Your task to perform on an android device: turn on bluetooth scan Image 0: 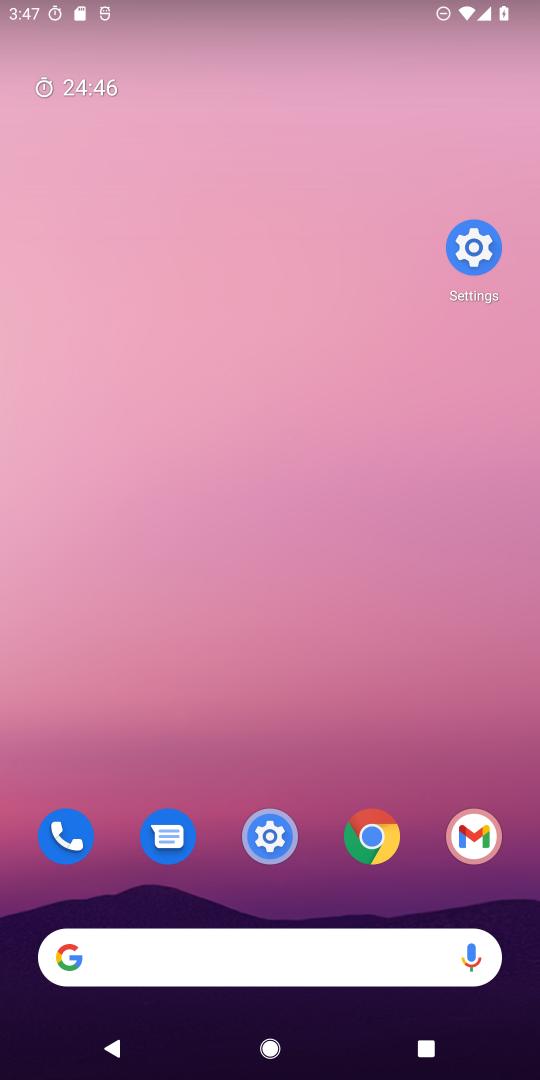
Step 0: click (278, 851)
Your task to perform on an android device: turn on bluetooth scan Image 1: 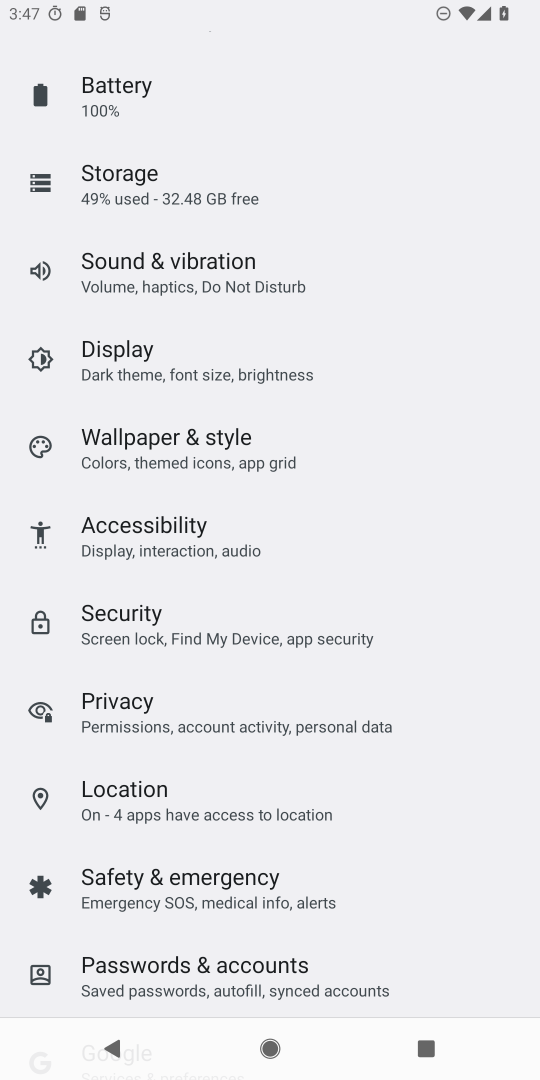
Step 1: click (173, 789)
Your task to perform on an android device: turn on bluetooth scan Image 2: 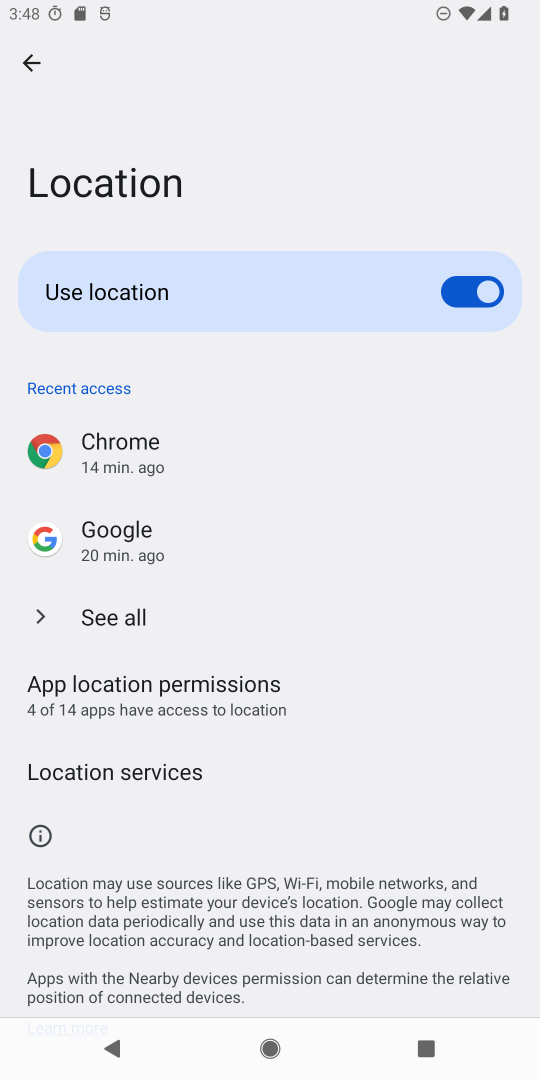
Step 2: click (134, 769)
Your task to perform on an android device: turn on bluetooth scan Image 3: 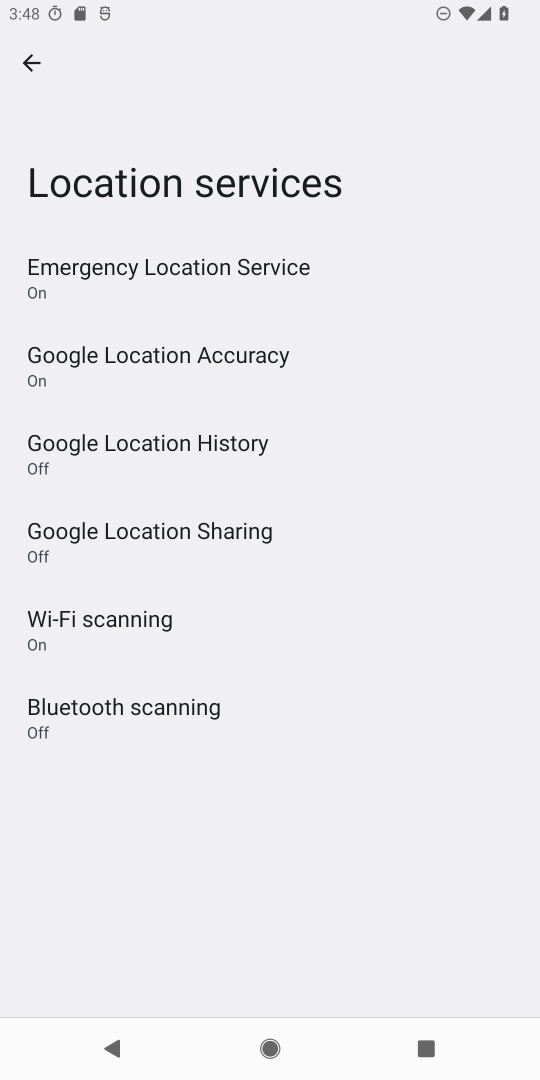
Step 3: click (130, 726)
Your task to perform on an android device: turn on bluetooth scan Image 4: 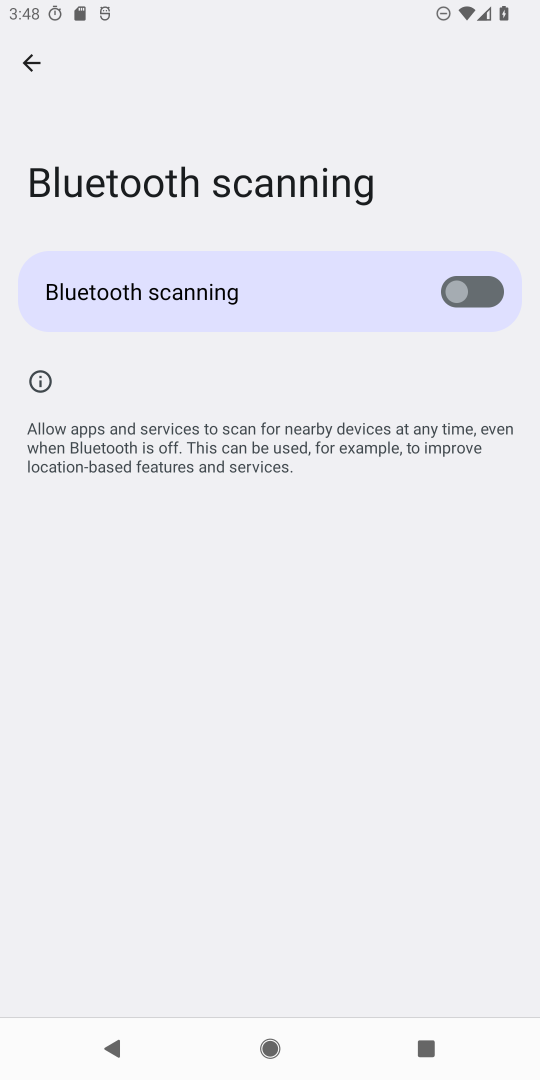
Step 4: click (499, 287)
Your task to perform on an android device: turn on bluetooth scan Image 5: 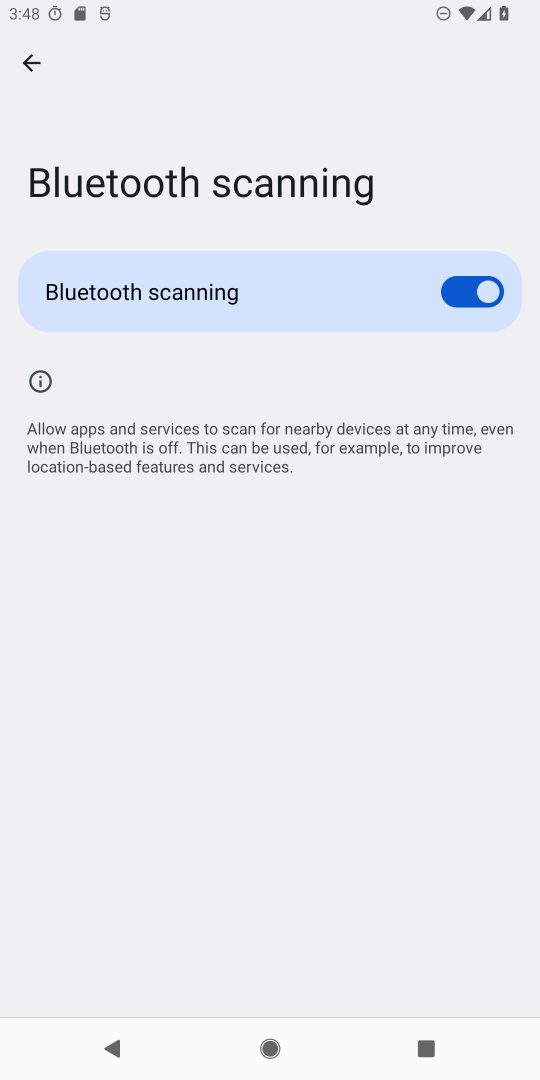
Step 5: task complete